Your task to perform on an android device: Play the last video I watched on Youtube Image 0: 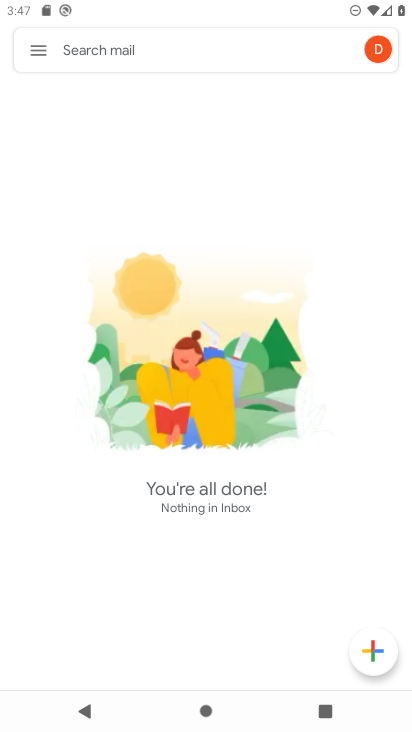
Step 0: press home button
Your task to perform on an android device: Play the last video I watched on Youtube Image 1: 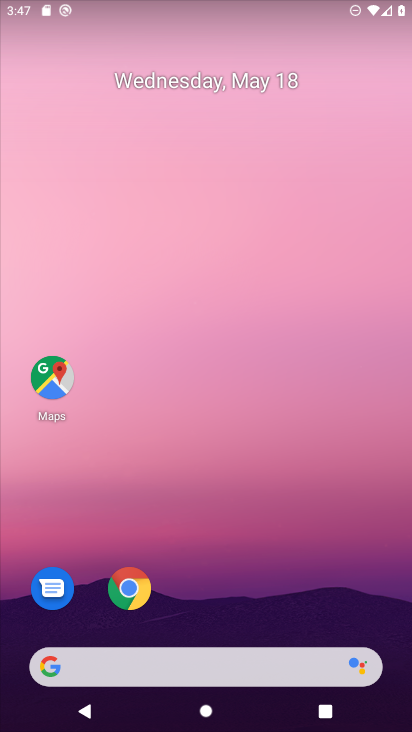
Step 1: drag from (260, 580) to (265, 5)
Your task to perform on an android device: Play the last video I watched on Youtube Image 2: 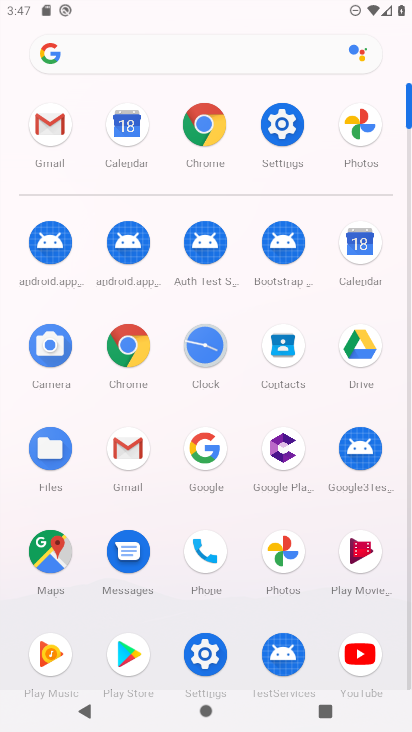
Step 2: click (350, 651)
Your task to perform on an android device: Play the last video I watched on Youtube Image 3: 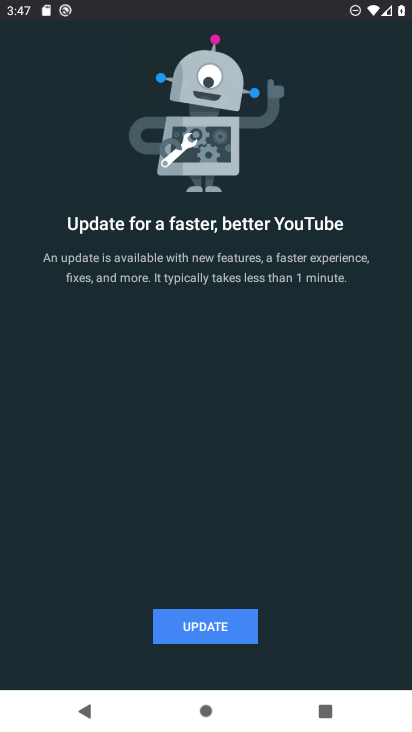
Step 3: click (215, 615)
Your task to perform on an android device: Play the last video I watched on Youtube Image 4: 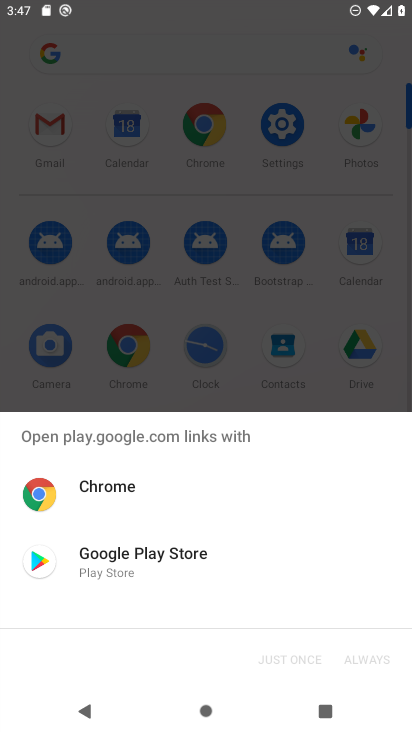
Step 4: click (135, 551)
Your task to perform on an android device: Play the last video I watched on Youtube Image 5: 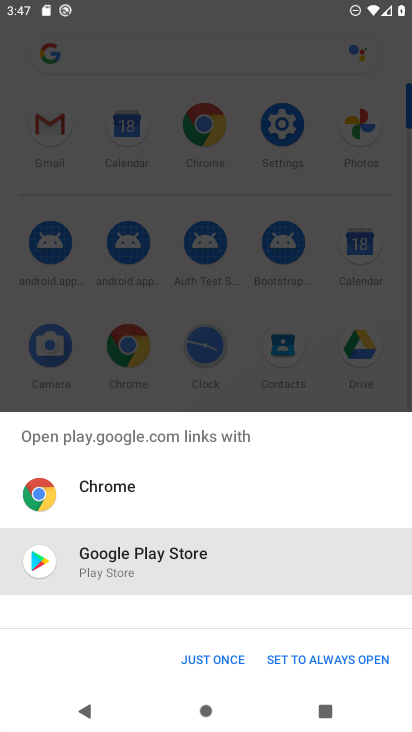
Step 5: click (274, 659)
Your task to perform on an android device: Play the last video I watched on Youtube Image 6: 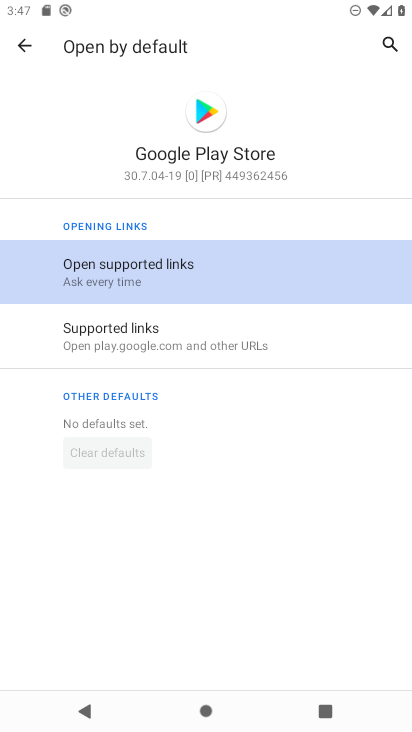
Step 6: click (82, 709)
Your task to perform on an android device: Play the last video I watched on Youtube Image 7: 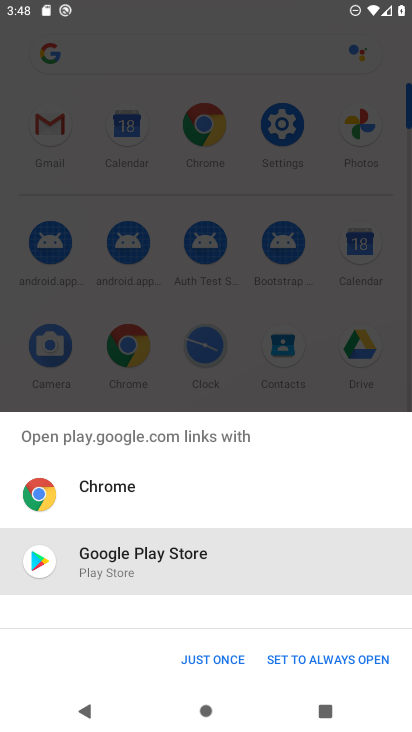
Step 7: click (195, 663)
Your task to perform on an android device: Play the last video I watched on Youtube Image 8: 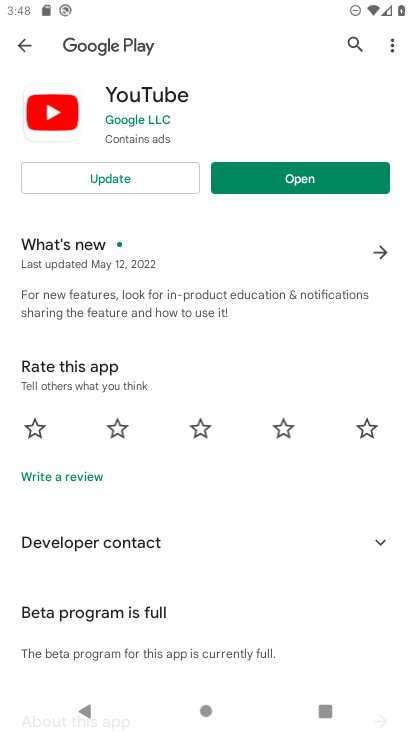
Step 8: click (144, 182)
Your task to perform on an android device: Play the last video I watched on Youtube Image 9: 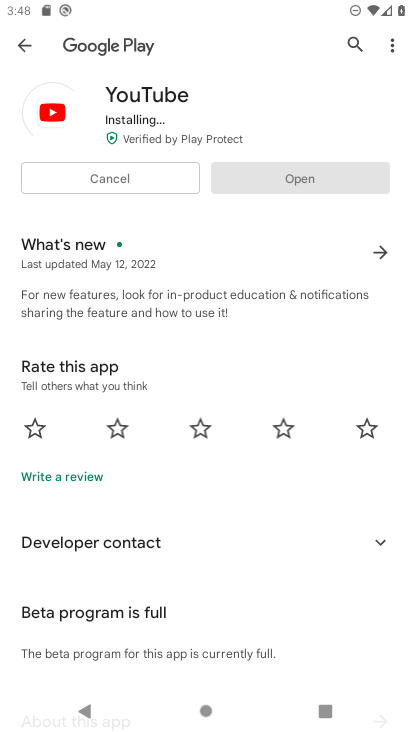
Step 9: click (291, 177)
Your task to perform on an android device: Play the last video I watched on Youtube Image 10: 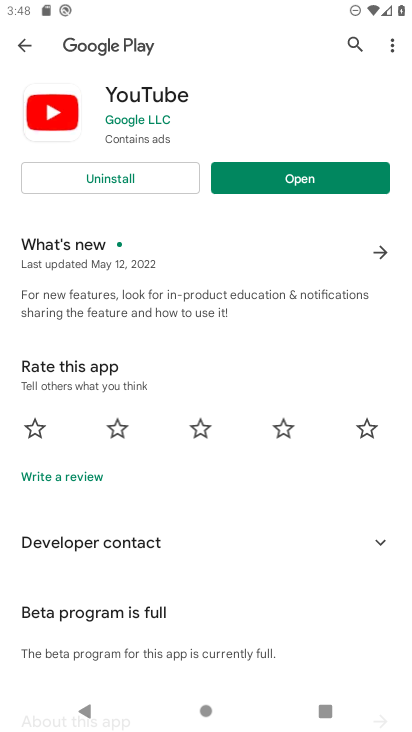
Step 10: click (291, 170)
Your task to perform on an android device: Play the last video I watched on Youtube Image 11: 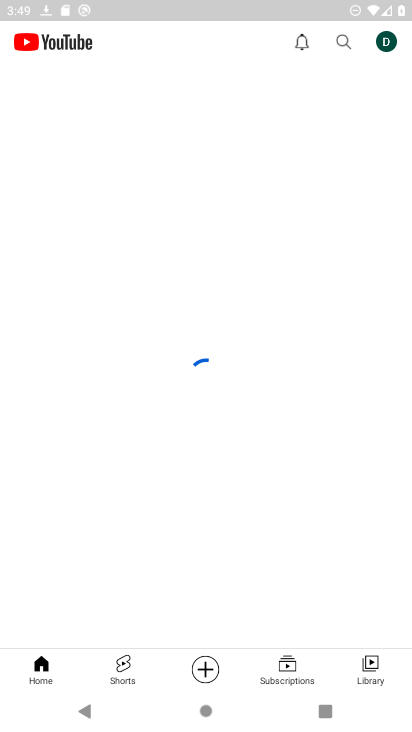
Step 11: task complete